Your task to perform on an android device: Go to CNN.com Image 0: 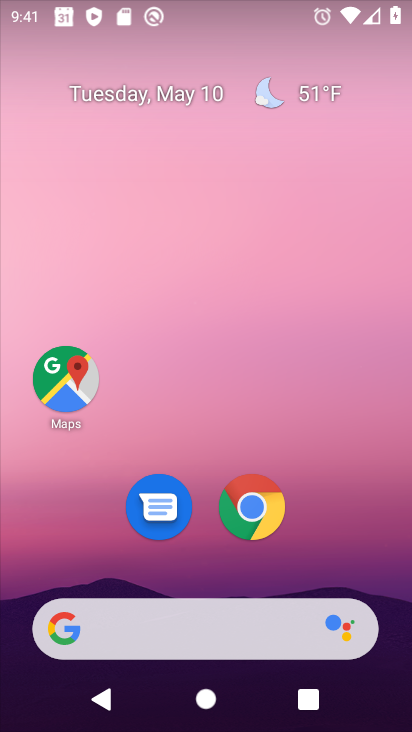
Step 0: click (183, 619)
Your task to perform on an android device: Go to CNN.com Image 1: 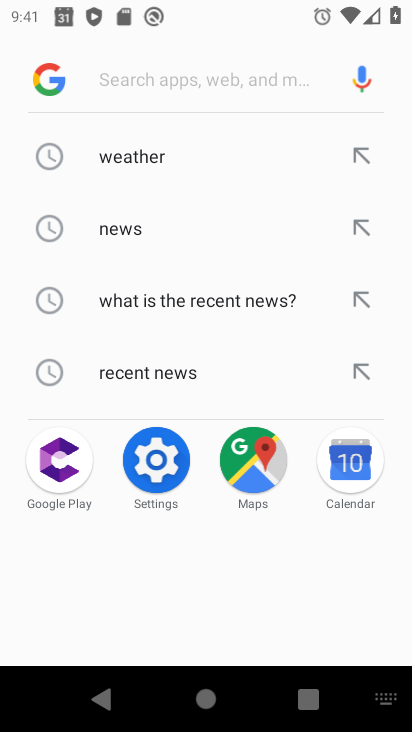
Step 1: type "cnn.com"
Your task to perform on an android device: Go to CNN.com Image 2: 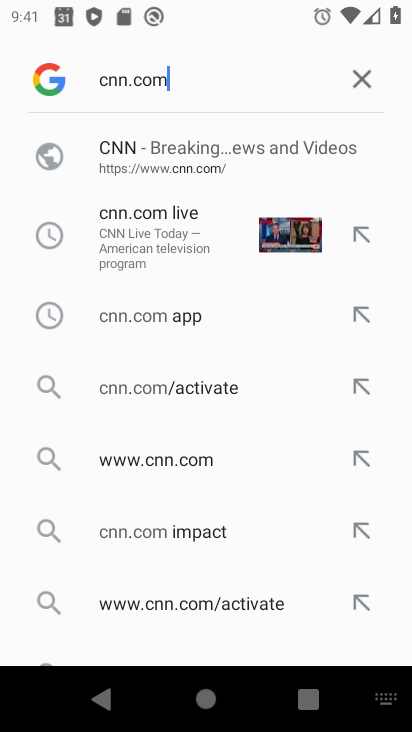
Step 2: click (229, 145)
Your task to perform on an android device: Go to CNN.com Image 3: 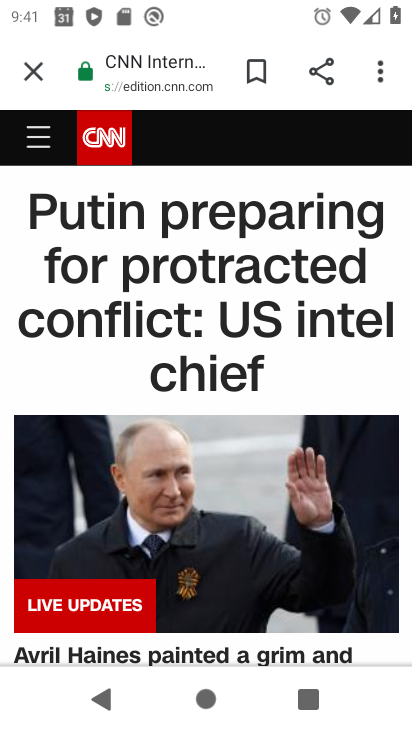
Step 3: task complete